Your task to perform on an android device: Open Google Maps Image 0: 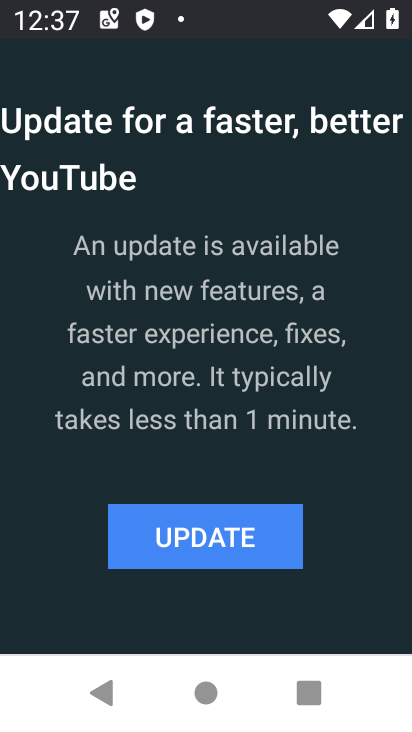
Step 0: press home button
Your task to perform on an android device: Open Google Maps Image 1: 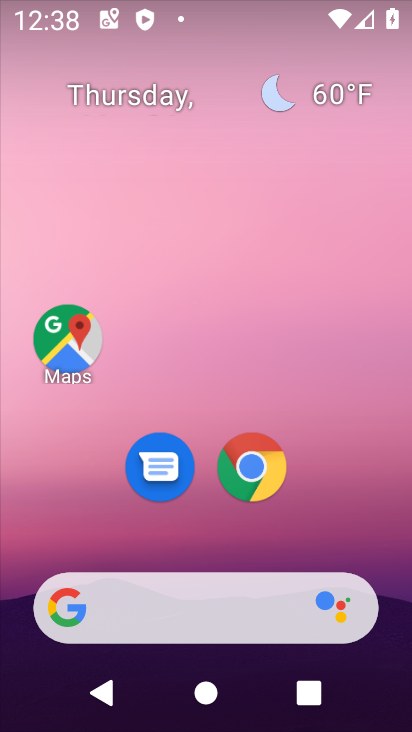
Step 1: click (54, 348)
Your task to perform on an android device: Open Google Maps Image 2: 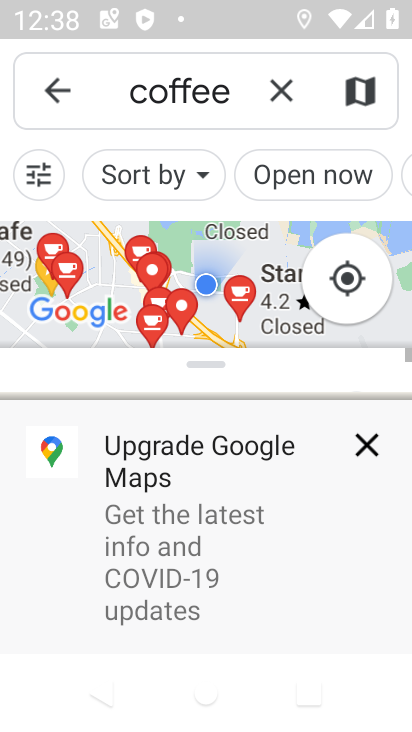
Step 2: click (375, 443)
Your task to perform on an android device: Open Google Maps Image 3: 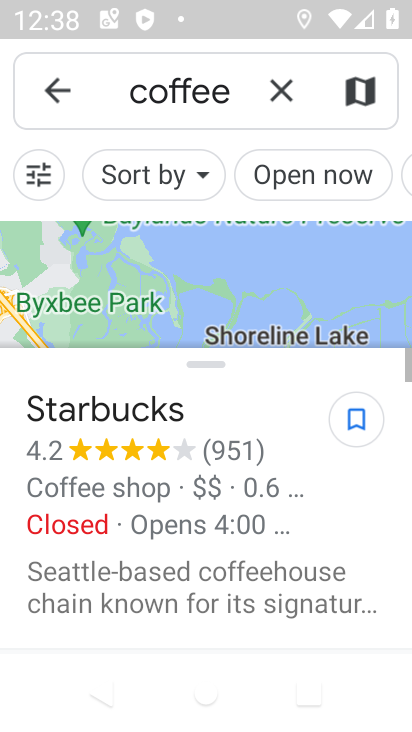
Step 3: click (51, 87)
Your task to perform on an android device: Open Google Maps Image 4: 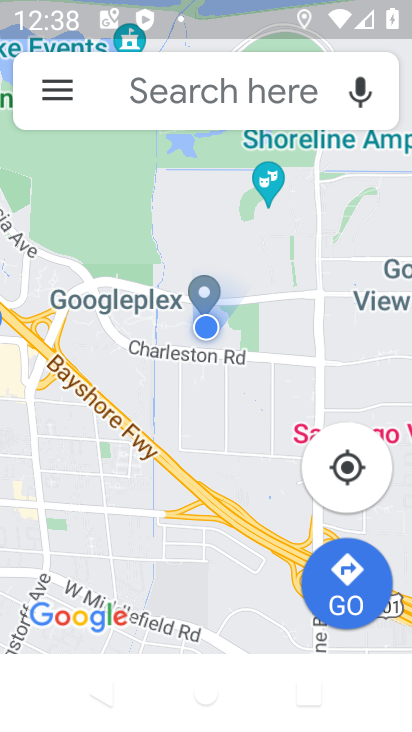
Step 4: task complete